Your task to perform on an android device: Clear the shopping cart on walmart.com. Add logitech g910 to the cart on walmart.com Image 0: 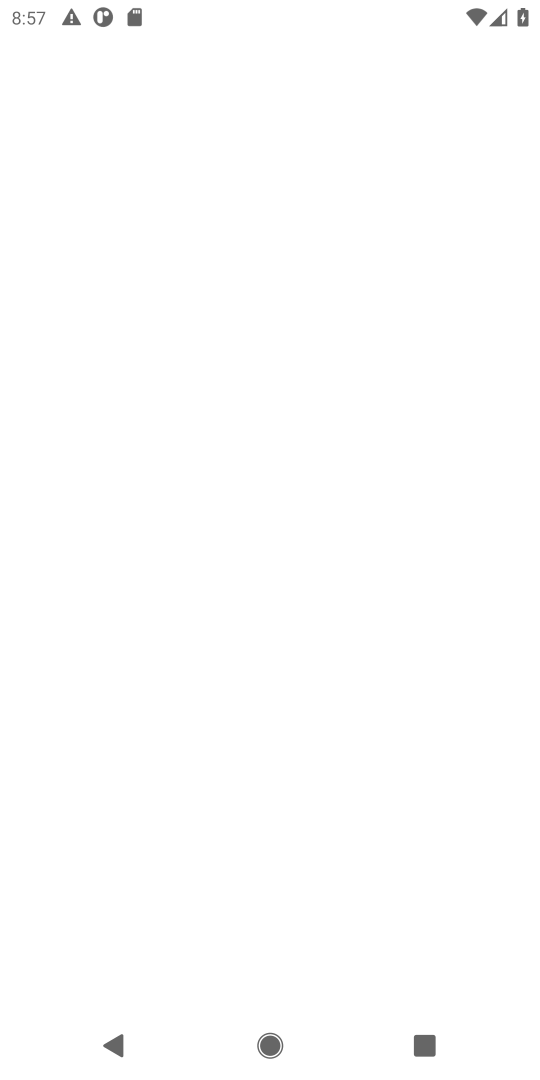
Step 0: task complete